Your task to perform on an android device: turn smart compose on in the gmail app Image 0: 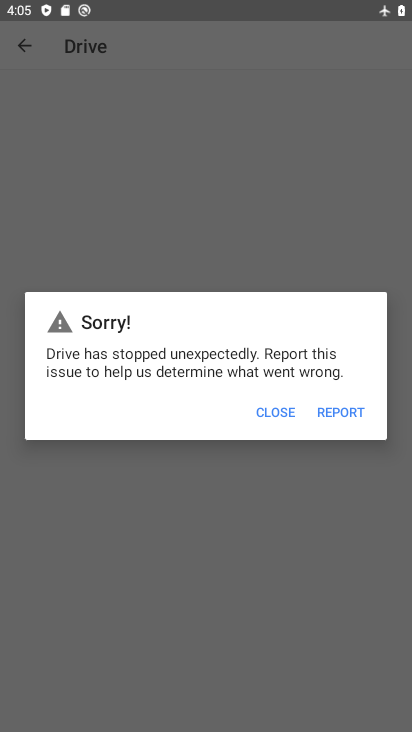
Step 0: press home button
Your task to perform on an android device: turn smart compose on in the gmail app Image 1: 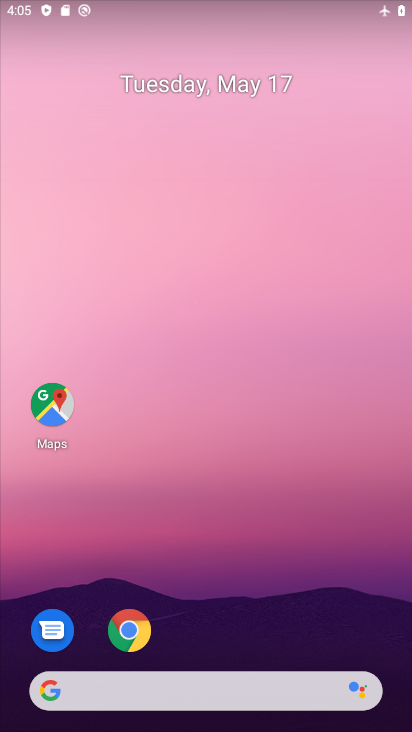
Step 1: drag from (226, 726) to (226, 125)
Your task to perform on an android device: turn smart compose on in the gmail app Image 2: 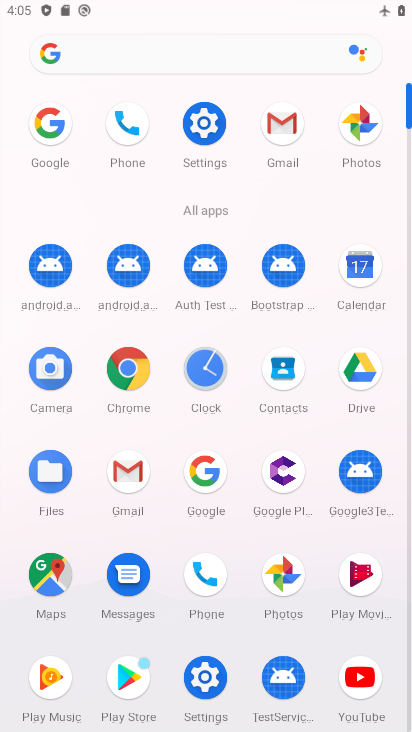
Step 2: click (130, 468)
Your task to perform on an android device: turn smart compose on in the gmail app Image 3: 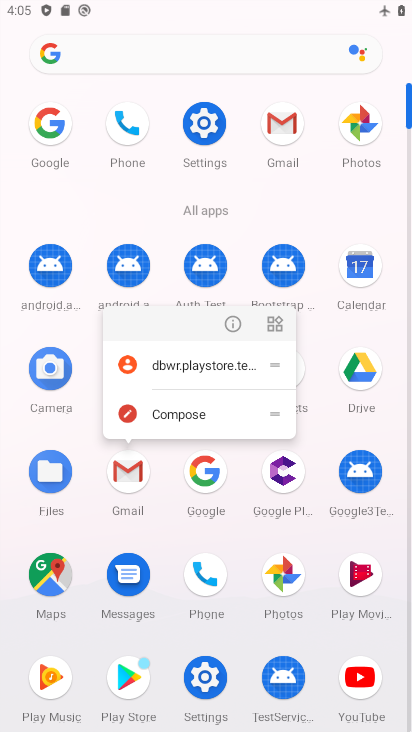
Step 3: click (130, 464)
Your task to perform on an android device: turn smart compose on in the gmail app Image 4: 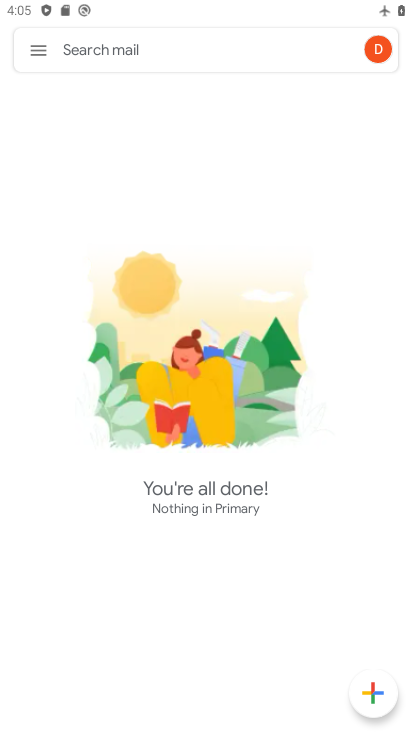
Step 4: click (38, 44)
Your task to perform on an android device: turn smart compose on in the gmail app Image 5: 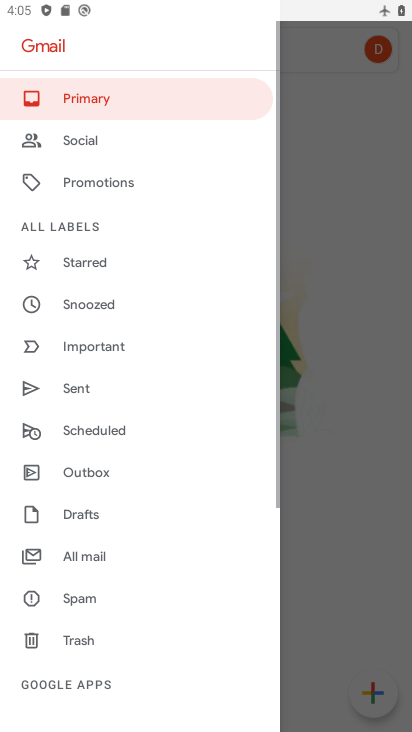
Step 5: drag from (95, 631) to (103, 209)
Your task to perform on an android device: turn smart compose on in the gmail app Image 6: 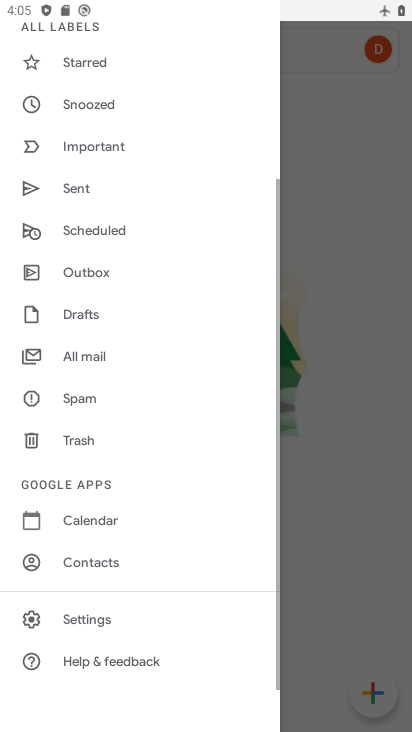
Step 6: click (93, 617)
Your task to perform on an android device: turn smart compose on in the gmail app Image 7: 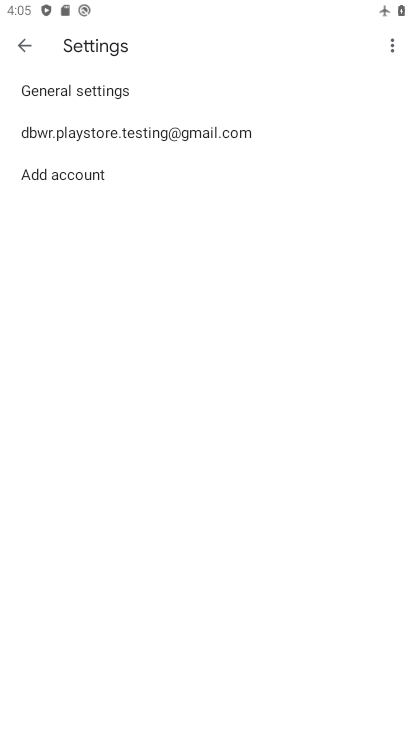
Step 7: click (173, 130)
Your task to perform on an android device: turn smart compose on in the gmail app Image 8: 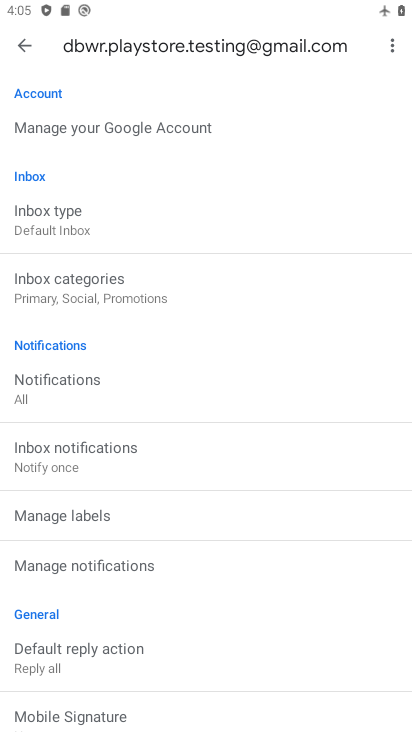
Step 8: task complete